Your task to perform on an android device: clear history in the chrome app Image 0: 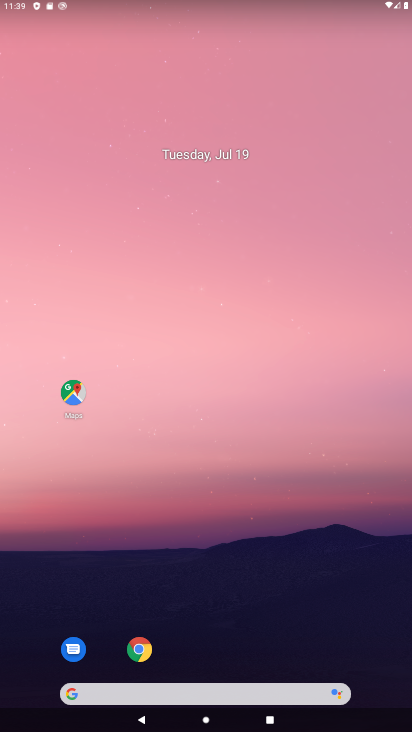
Step 0: press home button
Your task to perform on an android device: clear history in the chrome app Image 1: 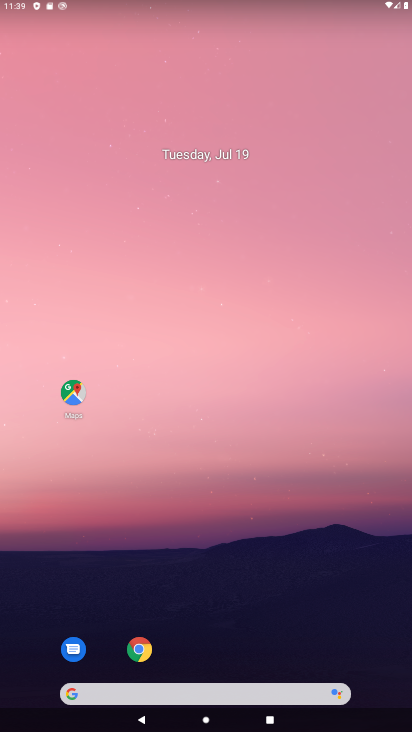
Step 1: drag from (352, 624) to (297, 111)
Your task to perform on an android device: clear history in the chrome app Image 2: 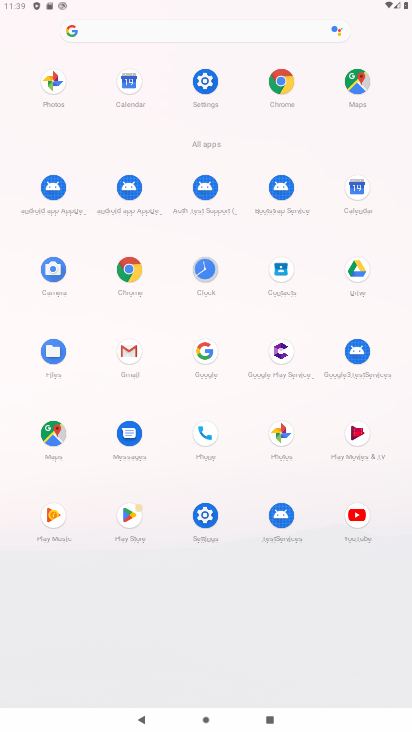
Step 2: click (208, 83)
Your task to perform on an android device: clear history in the chrome app Image 3: 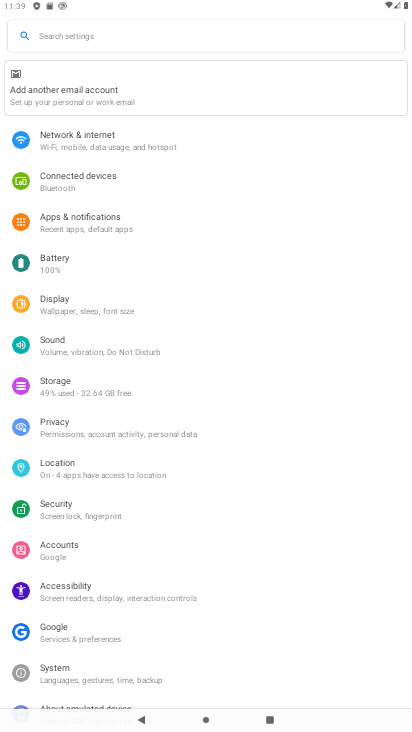
Step 3: click (117, 300)
Your task to perform on an android device: clear history in the chrome app Image 4: 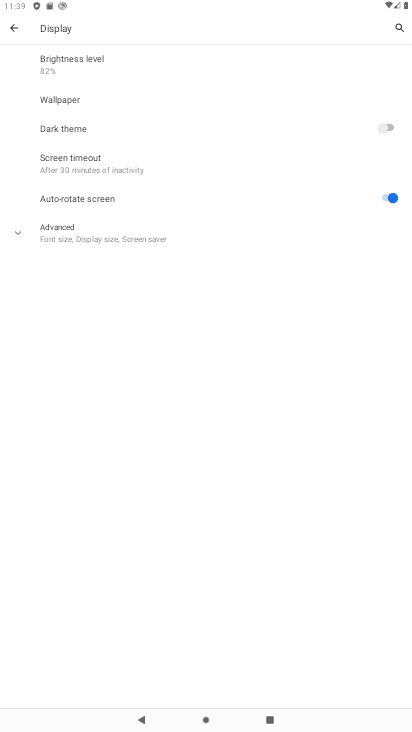
Step 4: click (158, 236)
Your task to perform on an android device: clear history in the chrome app Image 5: 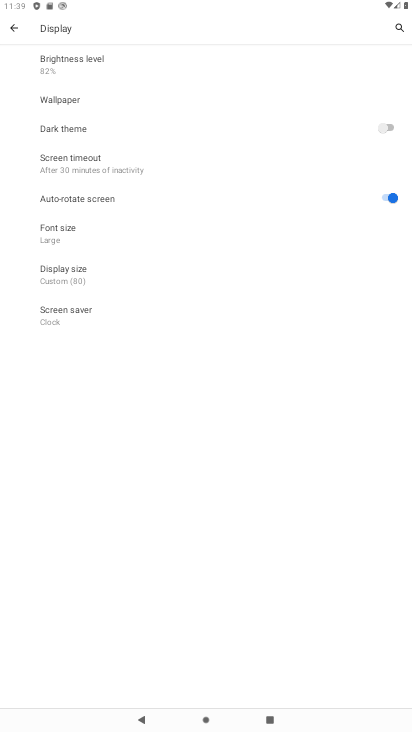
Step 5: click (156, 272)
Your task to perform on an android device: clear history in the chrome app Image 6: 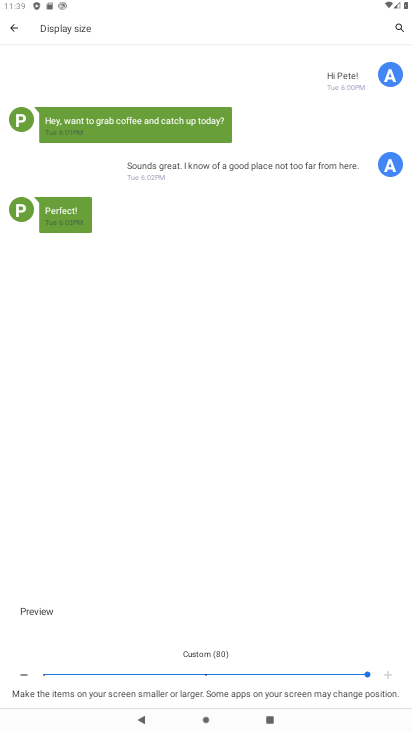
Step 6: click (202, 676)
Your task to perform on an android device: clear history in the chrome app Image 7: 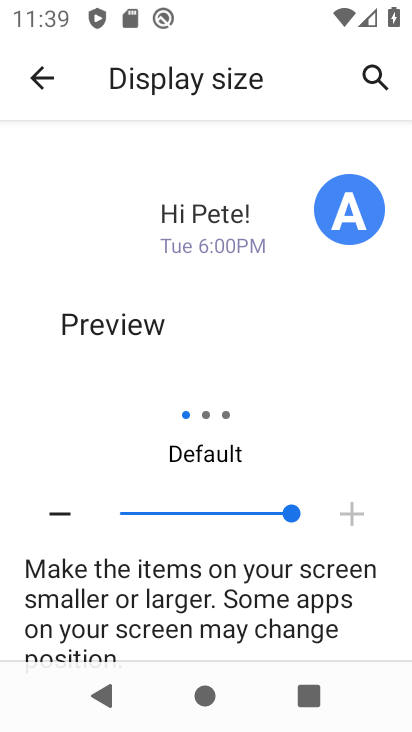
Step 7: press home button
Your task to perform on an android device: clear history in the chrome app Image 8: 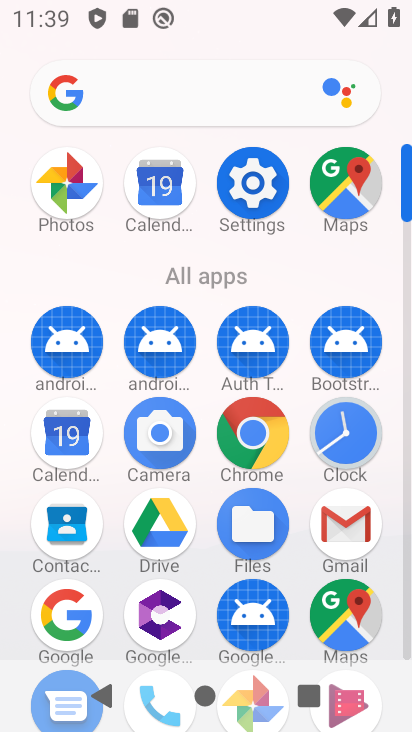
Step 8: click (267, 441)
Your task to perform on an android device: clear history in the chrome app Image 9: 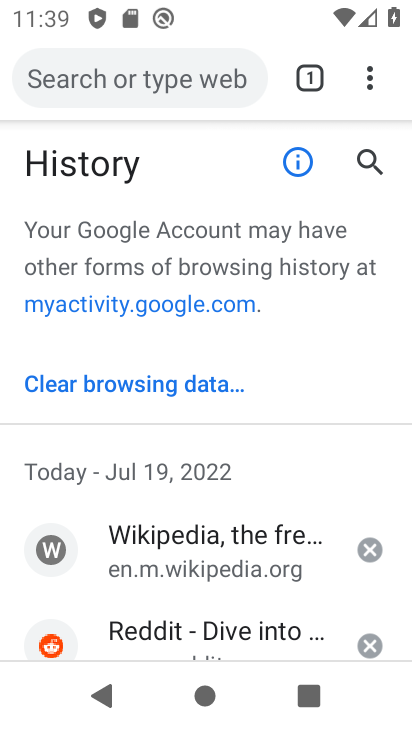
Step 9: click (376, 79)
Your task to perform on an android device: clear history in the chrome app Image 10: 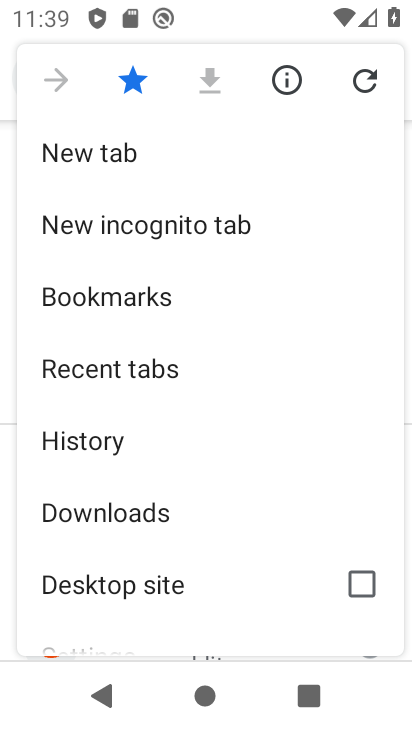
Step 10: drag from (172, 541) to (120, 219)
Your task to perform on an android device: clear history in the chrome app Image 11: 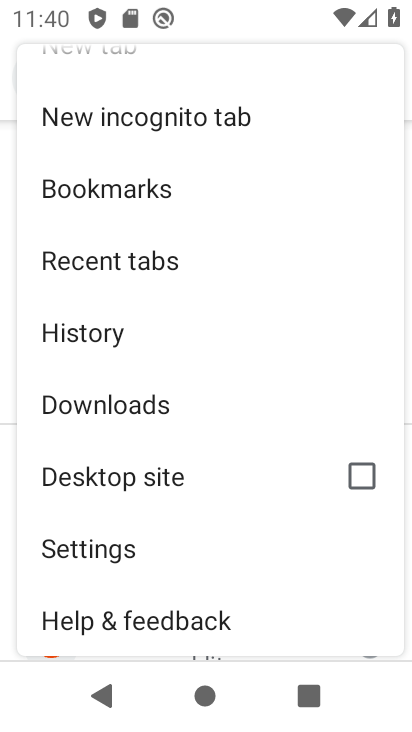
Step 11: click (107, 333)
Your task to perform on an android device: clear history in the chrome app Image 12: 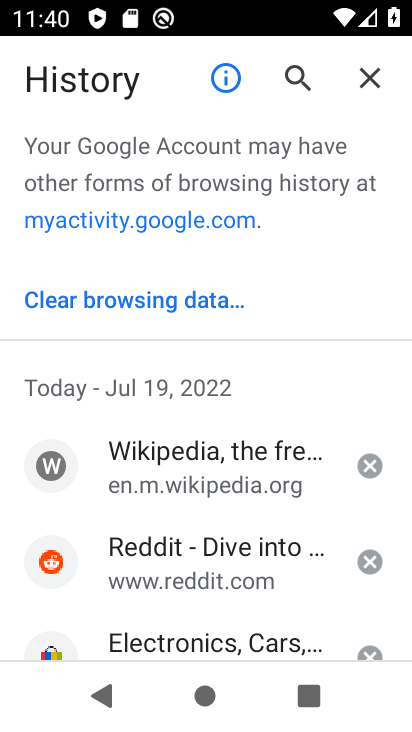
Step 12: click (129, 299)
Your task to perform on an android device: clear history in the chrome app Image 13: 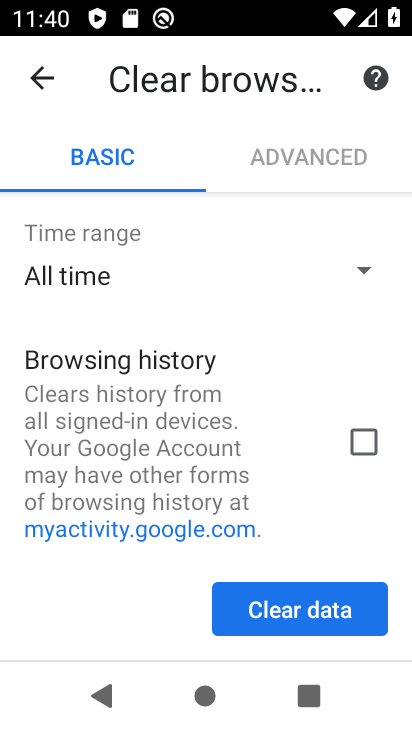
Step 13: click (335, 464)
Your task to perform on an android device: clear history in the chrome app Image 14: 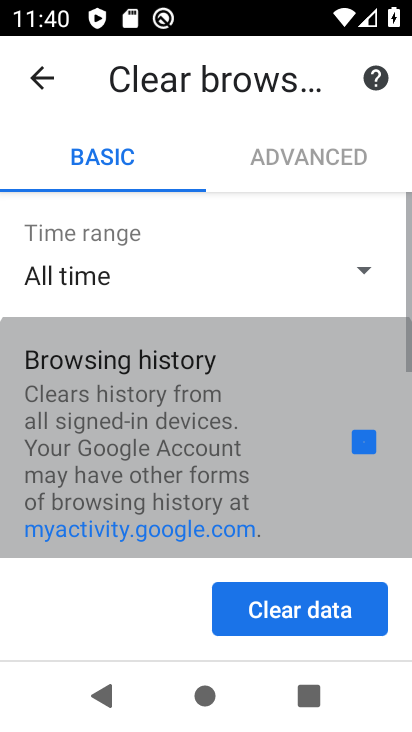
Step 14: click (332, 619)
Your task to perform on an android device: clear history in the chrome app Image 15: 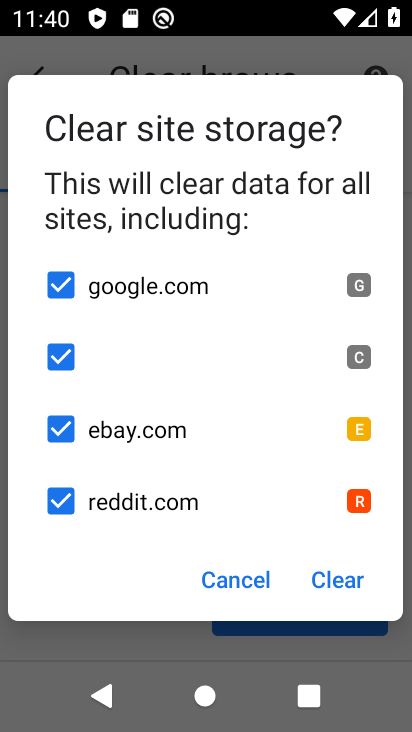
Step 15: click (345, 565)
Your task to perform on an android device: clear history in the chrome app Image 16: 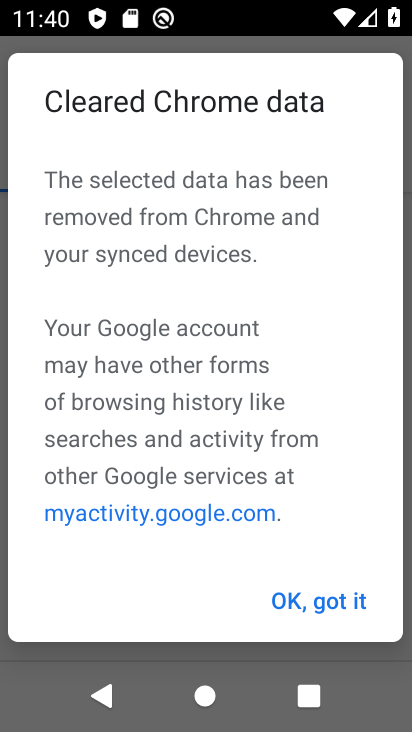
Step 16: click (345, 598)
Your task to perform on an android device: clear history in the chrome app Image 17: 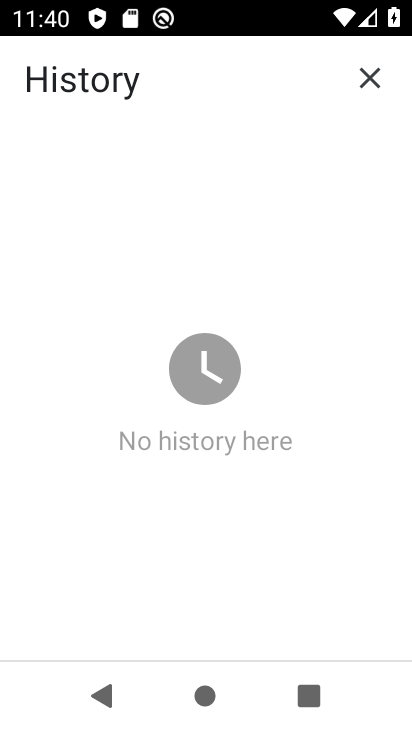
Step 17: task complete